Your task to perform on an android device: change the clock style Image 0: 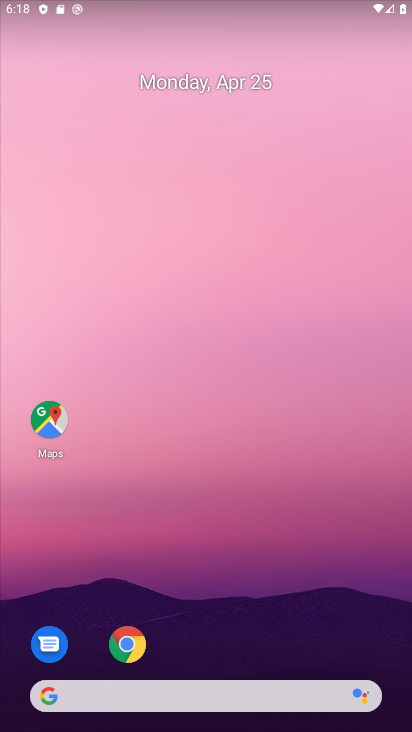
Step 0: drag from (315, 505) to (320, 84)
Your task to perform on an android device: change the clock style Image 1: 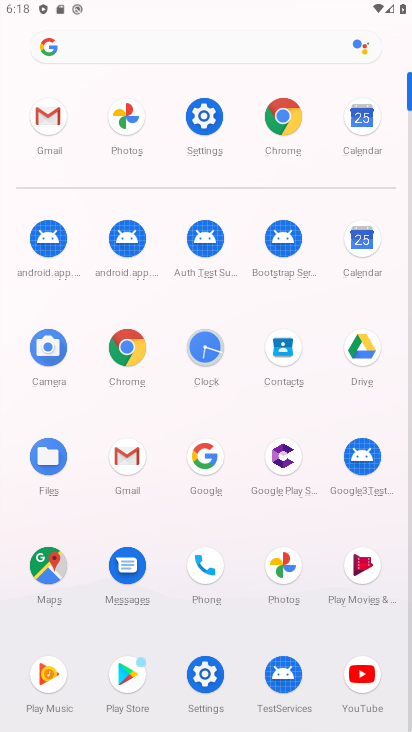
Step 1: click (208, 342)
Your task to perform on an android device: change the clock style Image 2: 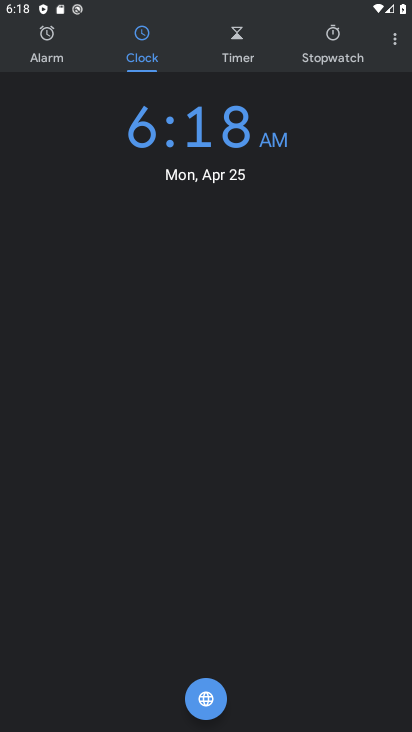
Step 2: click (392, 42)
Your task to perform on an android device: change the clock style Image 3: 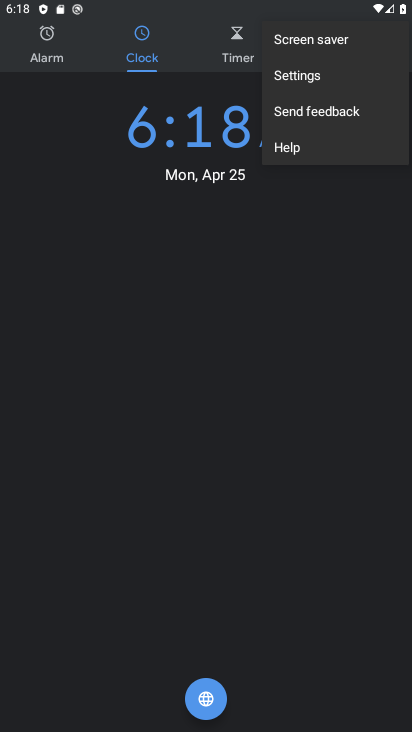
Step 3: click (318, 77)
Your task to perform on an android device: change the clock style Image 4: 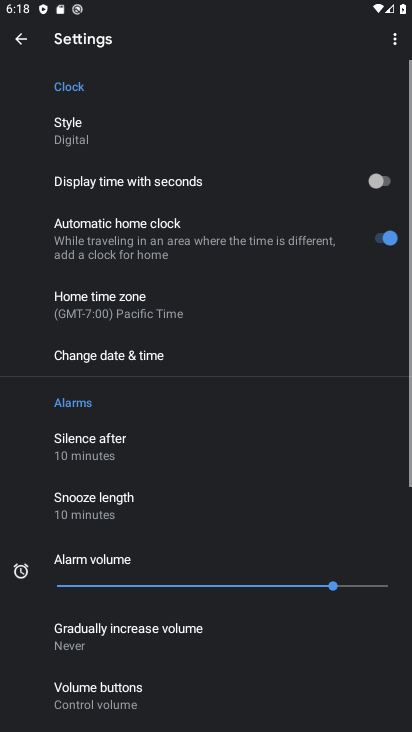
Step 4: click (323, 71)
Your task to perform on an android device: change the clock style Image 5: 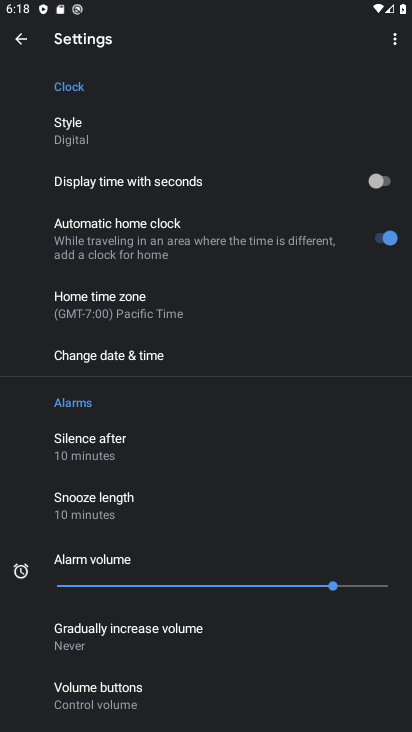
Step 5: click (125, 126)
Your task to perform on an android device: change the clock style Image 6: 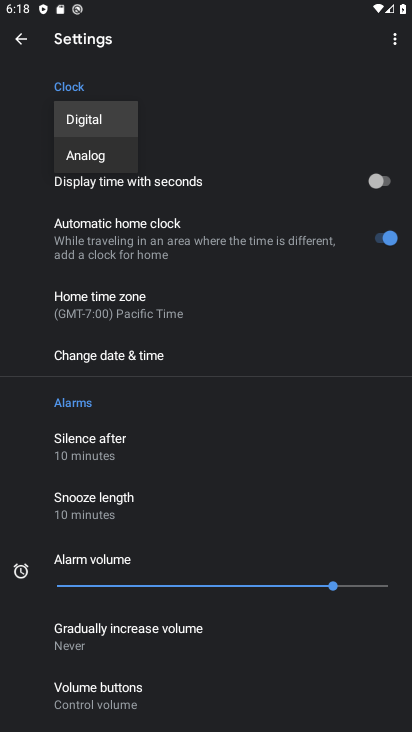
Step 6: click (99, 158)
Your task to perform on an android device: change the clock style Image 7: 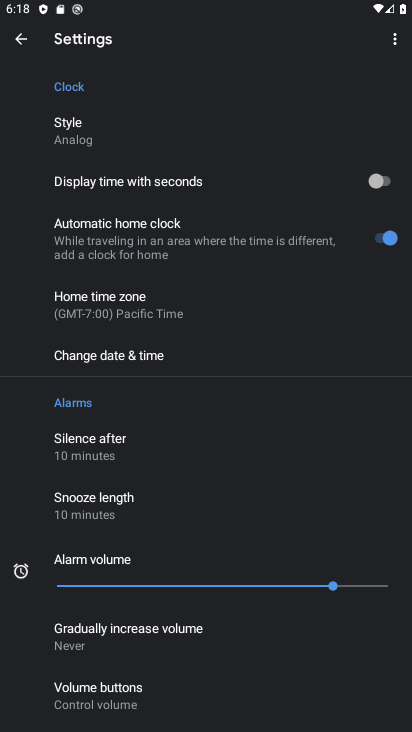
Step 7: task complete